Your task to perform on an android device: turn on bluetooth scan Image 0: 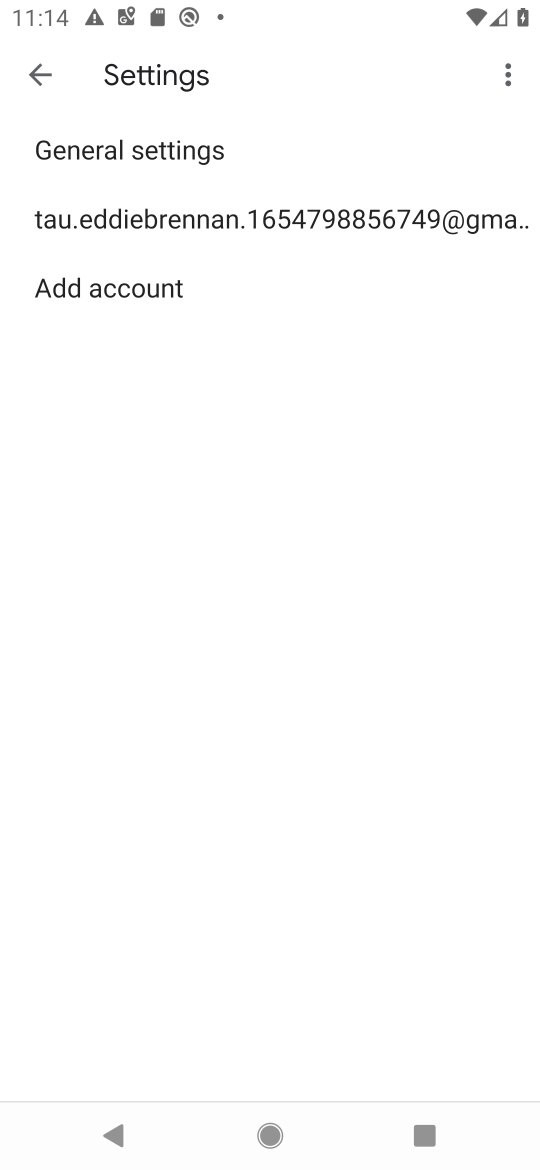
Step 0: press home button
Your task to perform on an android device: turn on bluetooth scan Image 1: 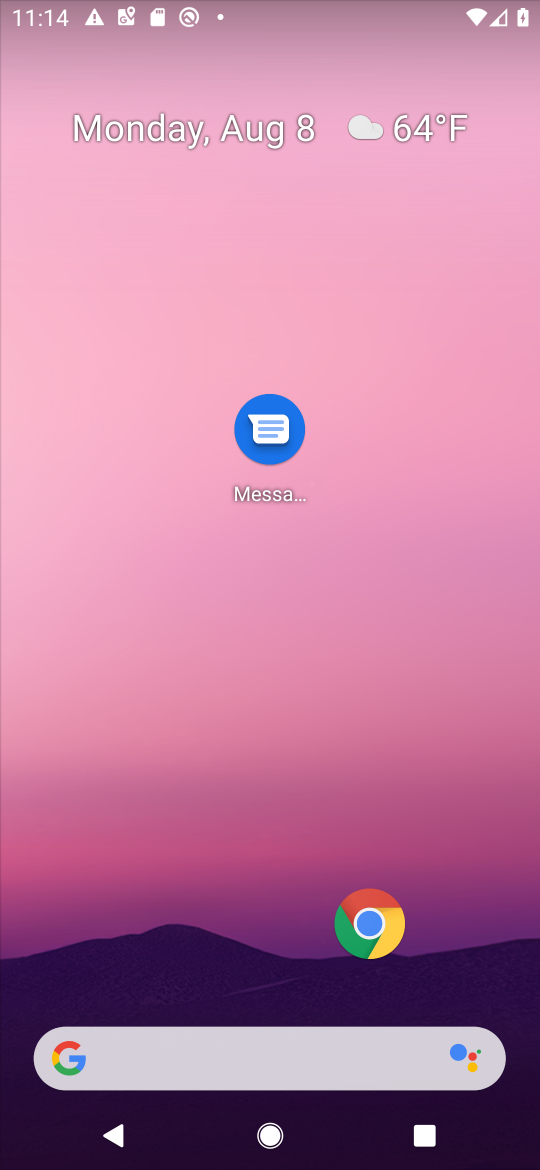
Step 1: drag from (49, 1124) to (414, 306)
Your task to perform on an android device: turn on bluetooth scan Image 2: 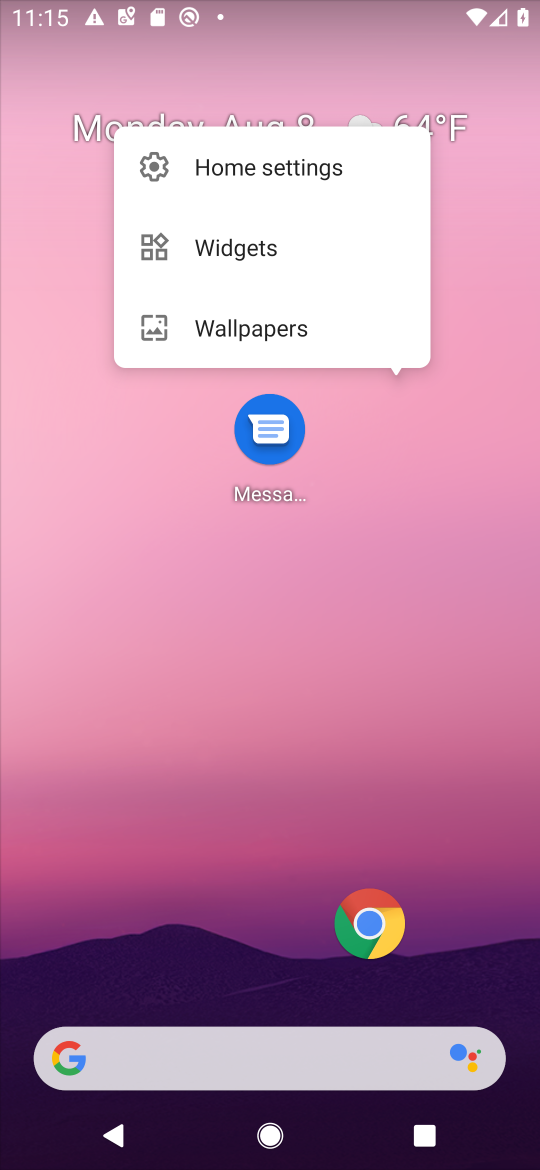
Step 2: drag from (44, 1106) to (432, 468)
Your task to perform on an android device: turn on bluetooth scan Image 3: 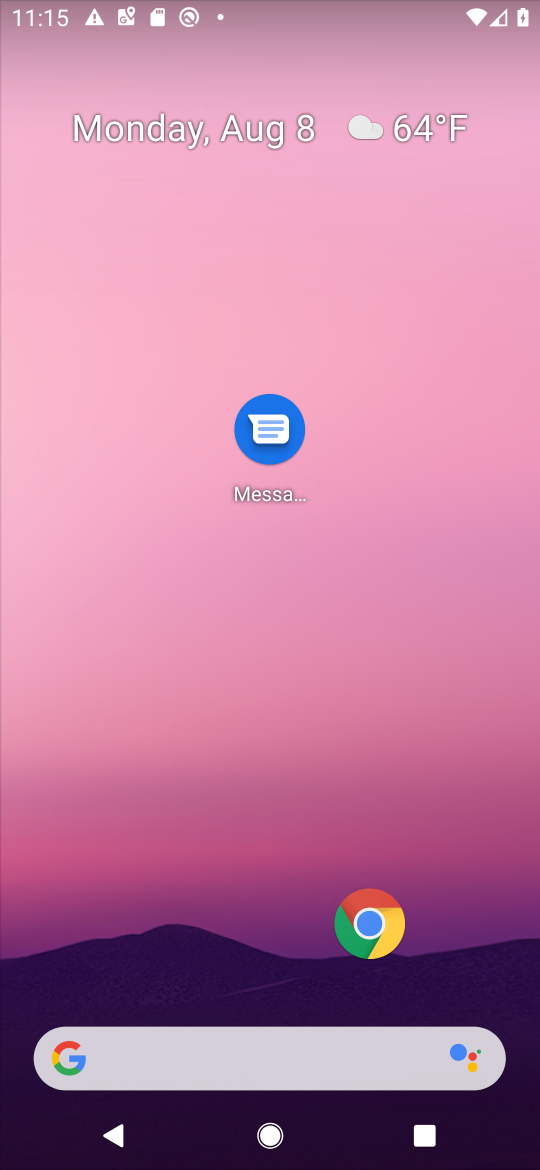
Step 3: drag from (31, 1123) to (399, 349)
Your task to perform on an android device: turn on bluetooth scan Image 4: 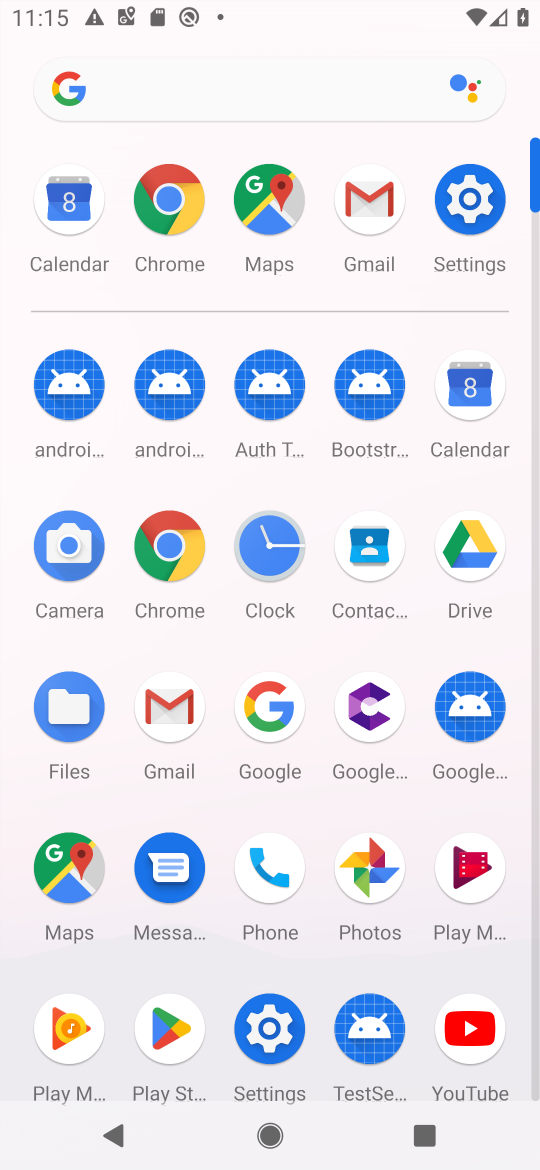
Step 4: click (476, 192)
Your task to perform on an android device: turn on bluetooth scan Image 5: 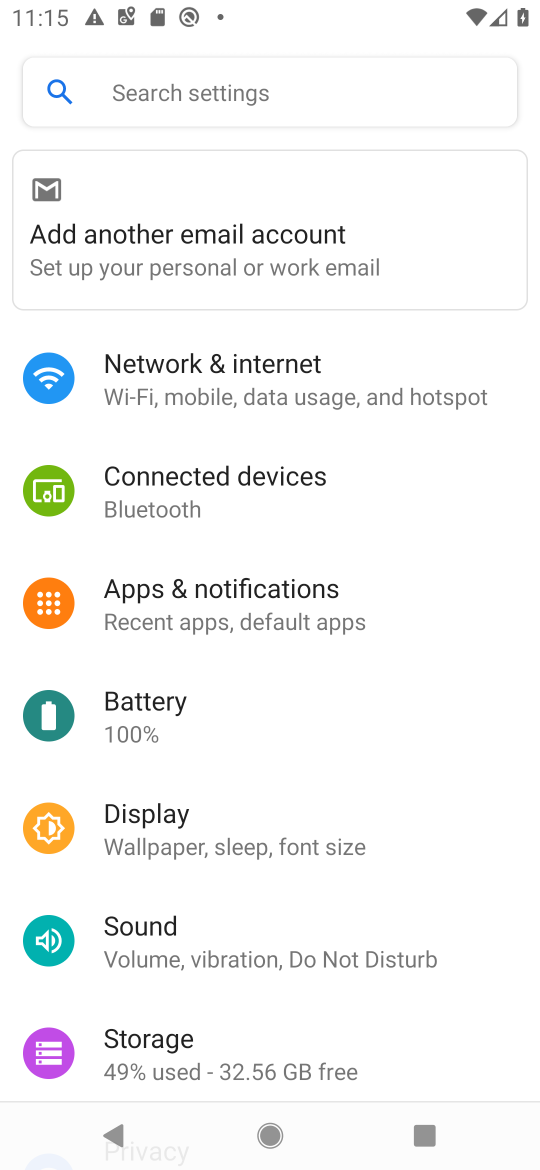
Step 5: click (243, 464)
Your task to perform on an android device: turn on bluetooth scan Image 6: 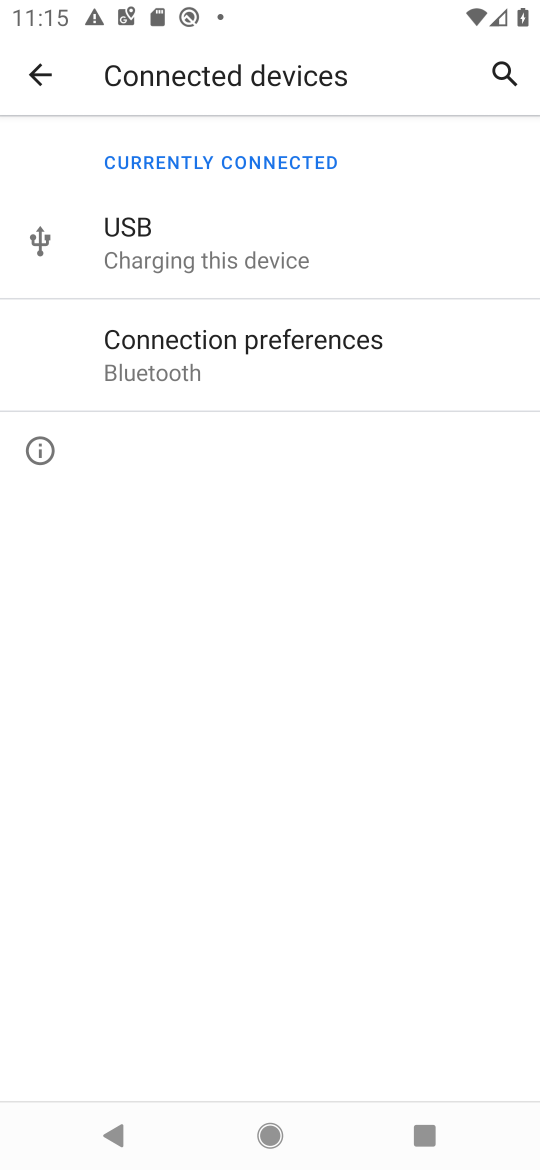
Step 6: click (207, 323)
Your task to perform on an android device: turn on bluetooth scan Image 7: 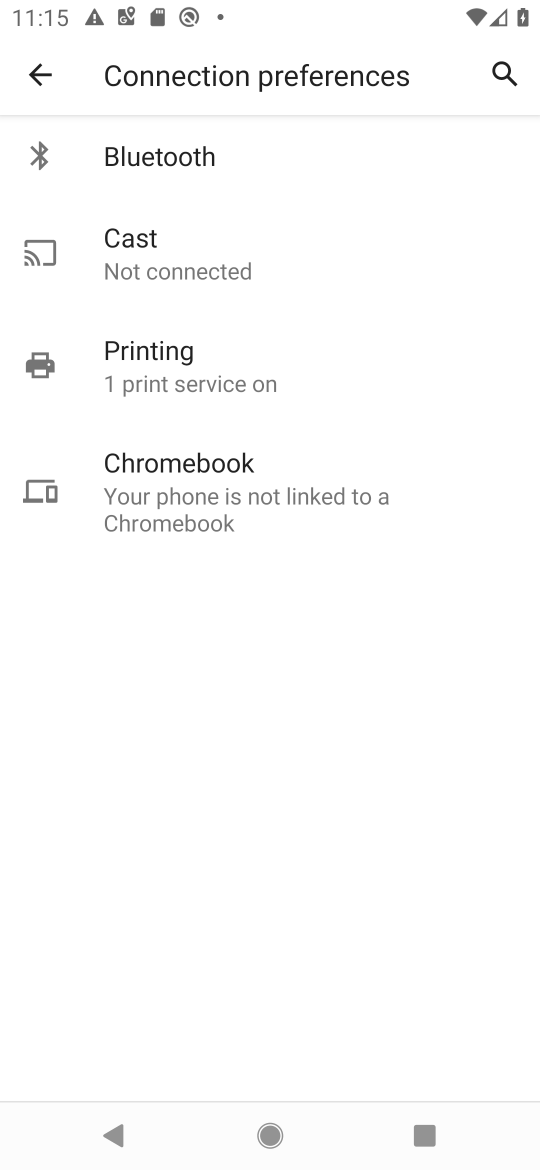
Step 7: click (206, 172)
Your task to perform on an android device: turn on bluetooth scan Image 8: 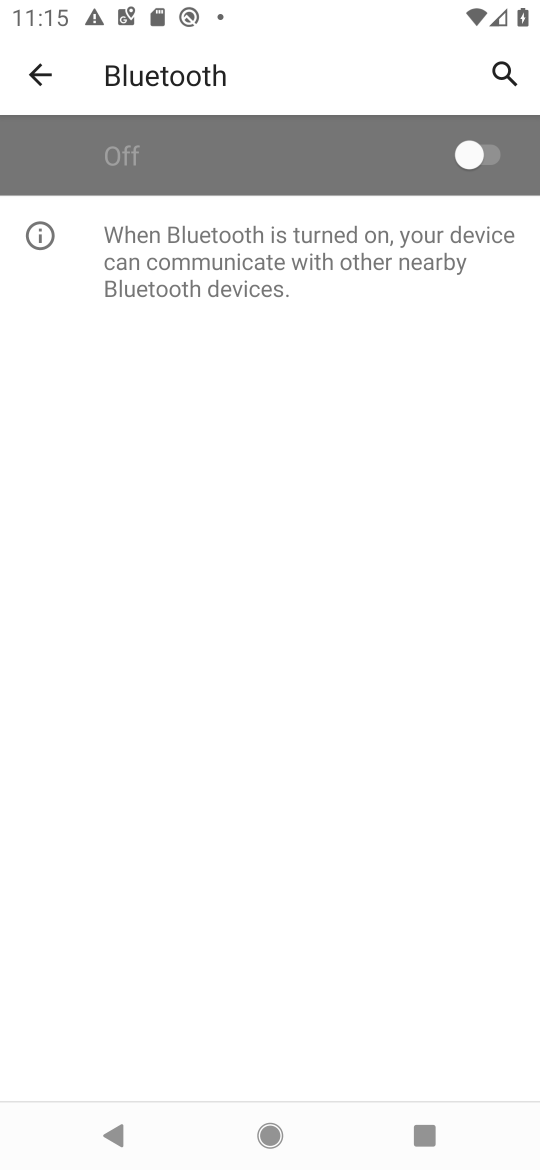
Step 8: task complete